Your task to perform on an android device: Do I have any events this weekend? Image 0: 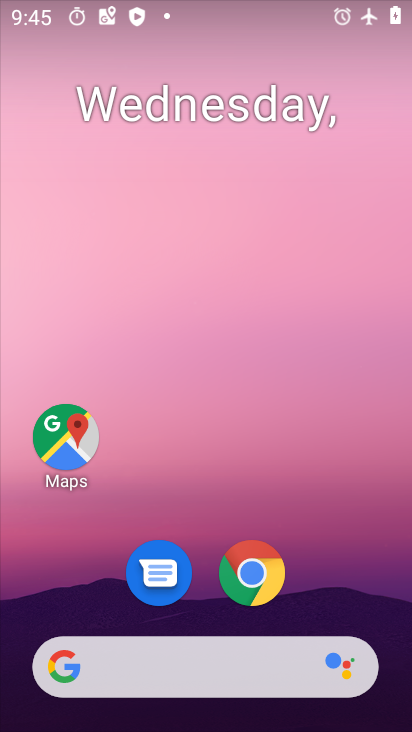
Step 0: drag from (352, 609) to (397, 86)
Your task to perform on an android device: Do I have any events this weekend? Image 1: 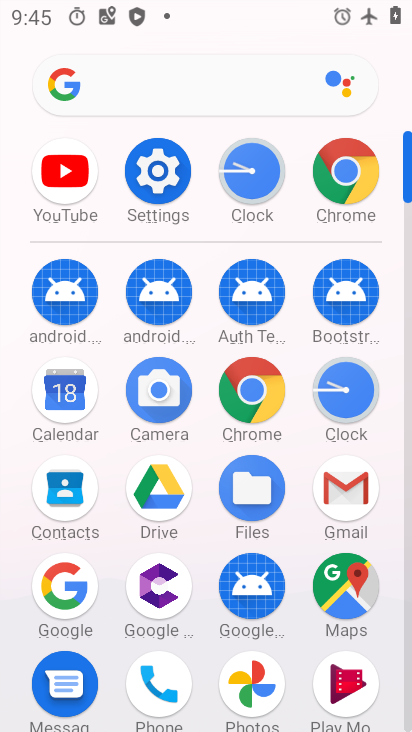
Step 1: click (87, 387)
Your task to perform on an android device: Do I have any events this weekend? Image 2: 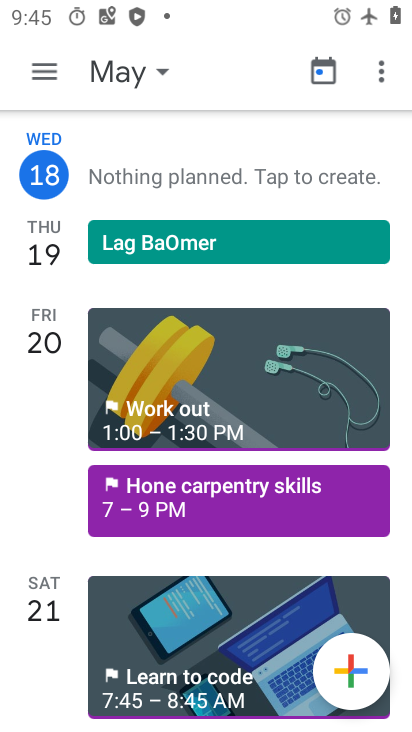
Step 2: click (152, 74)
Your task to perform on an android device: Do I have any events this weekend? Image 3: 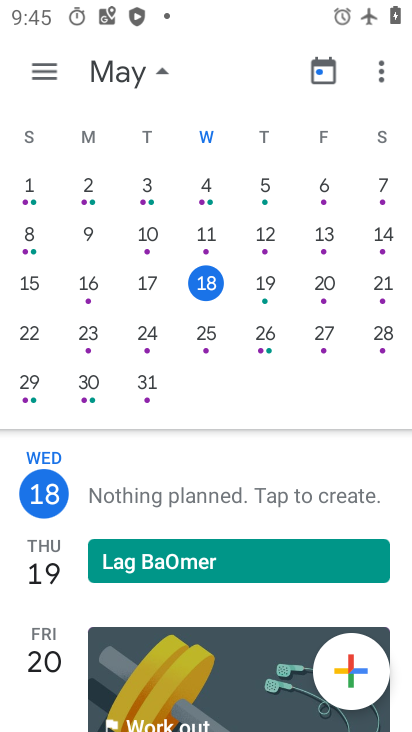
Step 3: click (373, 285)
Your task to perform on an android device: Do I have any events this weekend? Image 4: 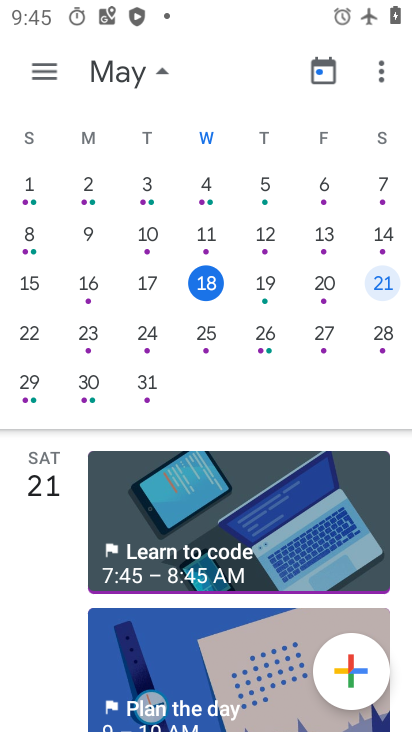
Step 4: drag from (257, 530) to (328, 204)
Your task to perform on an android device: Do I have any events this weekend? Image 5: 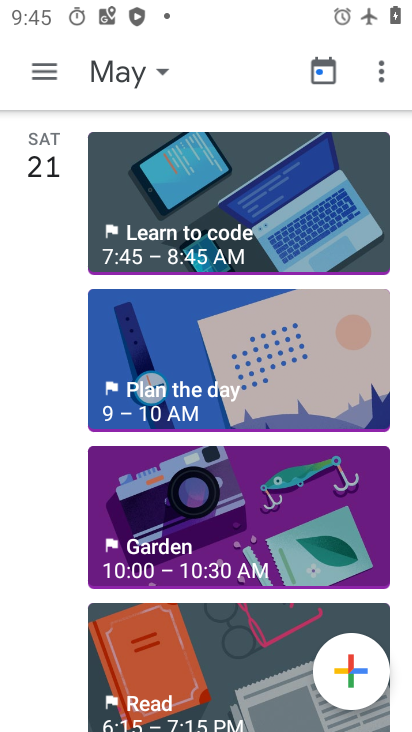
Step 5: click (328, 204)
Your task to perform on an android device: Do I have any events this weekend? Image 6: 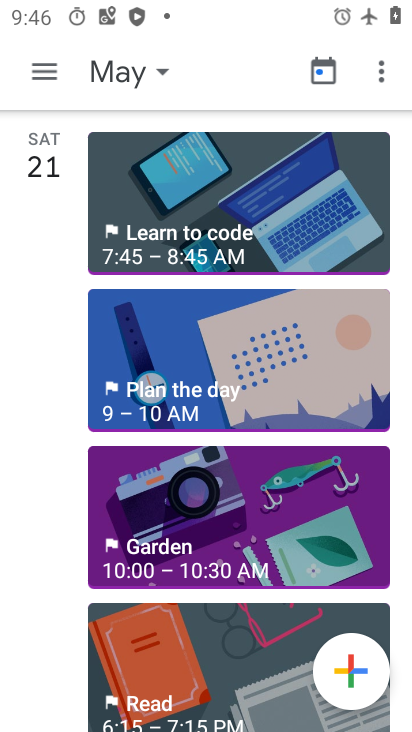
Step 6: task complete